Your task to perform on an android device: turn on the 12-hour format for clock Image 0: 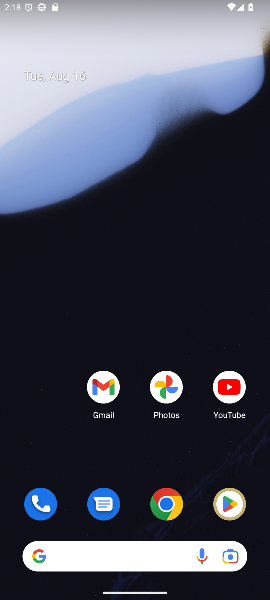
Step 0: drag from (128, 486) to (141, 27)
Your task to perform on an android device: turn on the 12-hour format for clock Image 1: 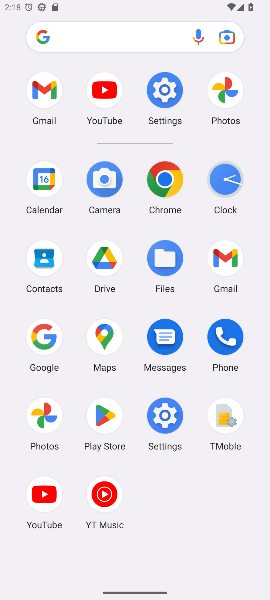
Step 1: click (225, 179)
Your task to perform on an android device: turn on the 12-hour format for clock Image 2: 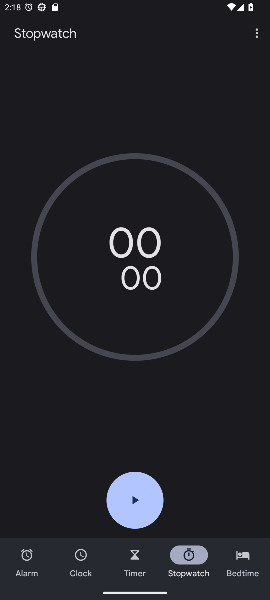
Step 2: click (258, 31)
Your task to perform on an android device: turn on the 12-hour format for clock Image 3: 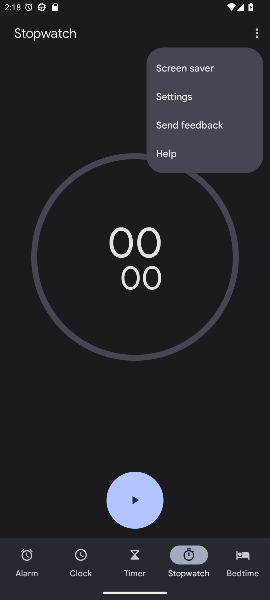
Step 3: click (176, 97)
Your task to perform on an android device: turn on the 12-hour format for clock Image 4: 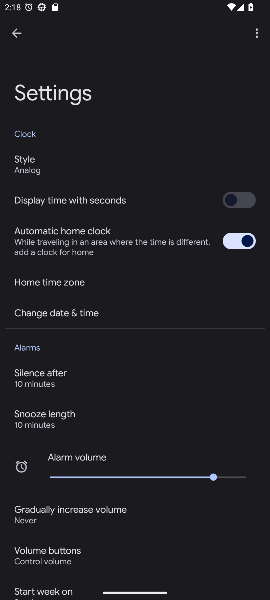
Step 4: click (51, 312)
Your task to perform on an android device: turn on the 12-hour format for clock Image 5: 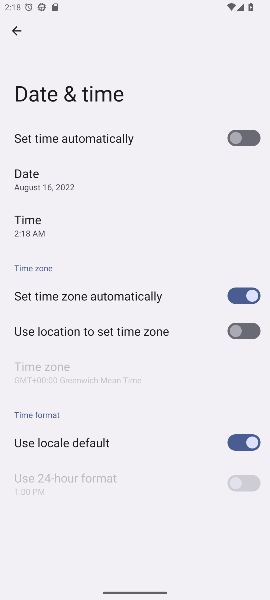
Step 5: task complete